Your task to perform on an android device: Open my contact list Image 0: 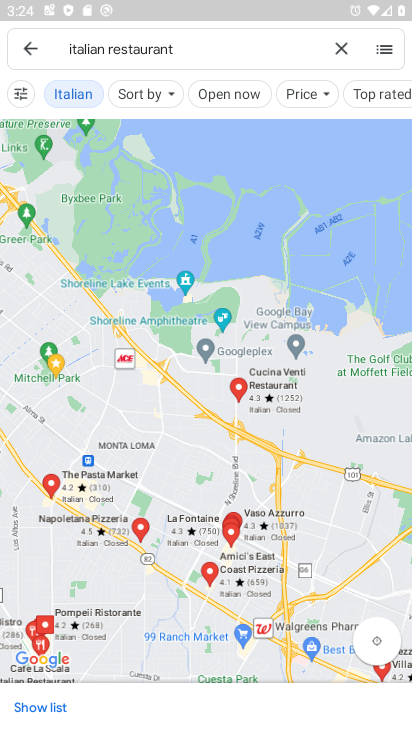
Step 0: press home button
Your task to perform on an android device: Open my contact list Image 1: 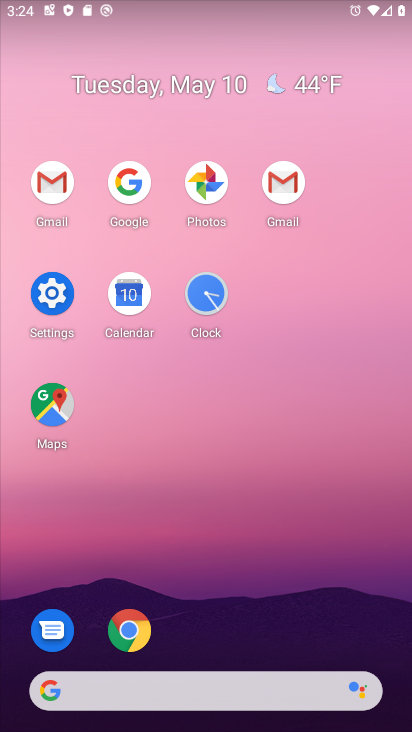
Step 1: drag from (271, 557) to (271, 285)
Your task to perform on an android device: Open my contact list Image 2: 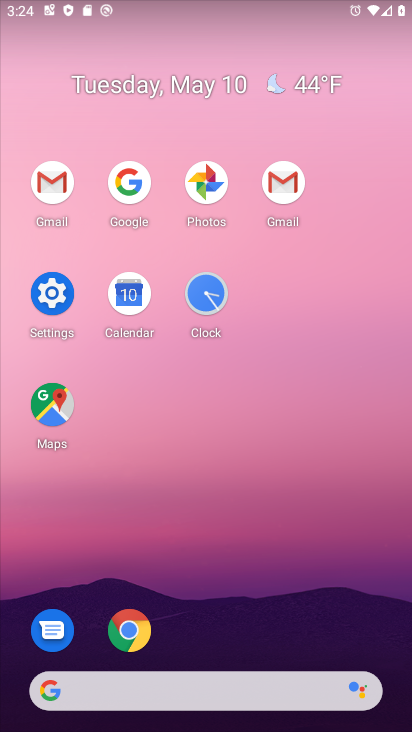
Step 2: drag from (261, 644) to (275, 180)
Your task to perform on an android device: Open my contact list Image 3: 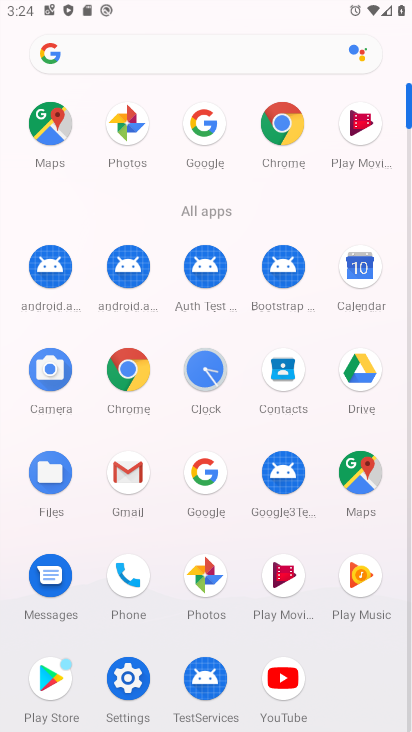
Step 3: drag from (287, 380) to (285, 306)
Your task to perform on an android device: Open my contact list Image 4: 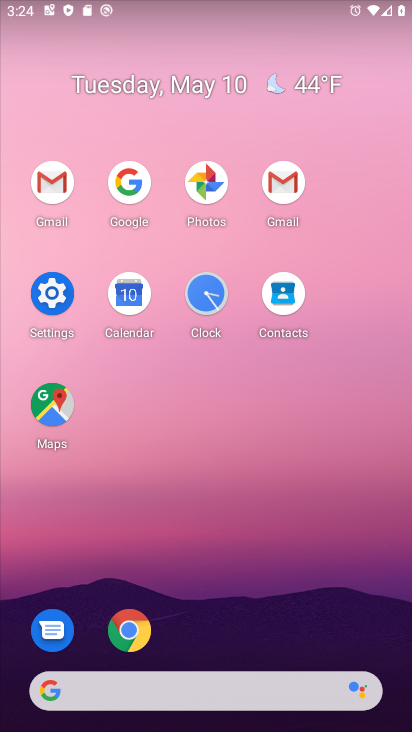
Step 4: click (285, 306)
Your task to perform on an android device: Open my contact list Image 5: 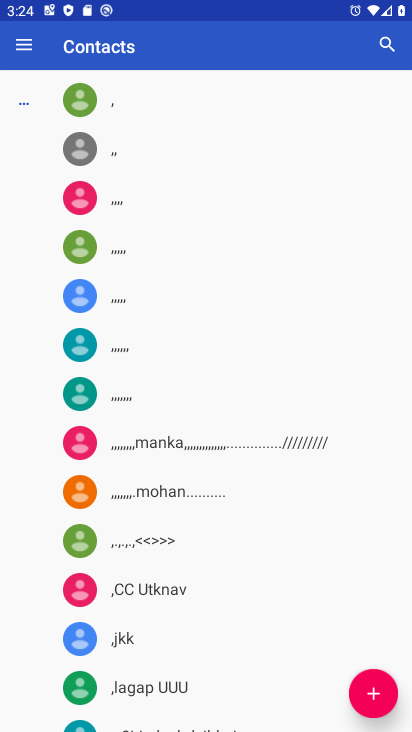
Step 5: task complete